Your task to perform on an android device: remove spam from my inbox in the gmail app Image 0: 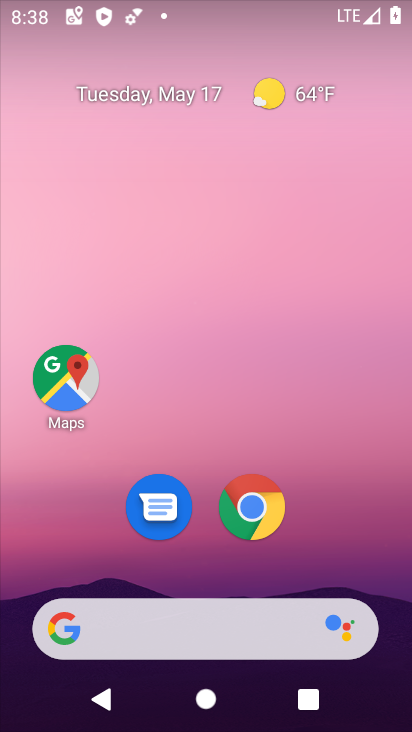
Step 0: drag from (319, 550) to (364, 4)
Your task to perform on an android device: remove spam from my inbox in the gmail app Image 1: 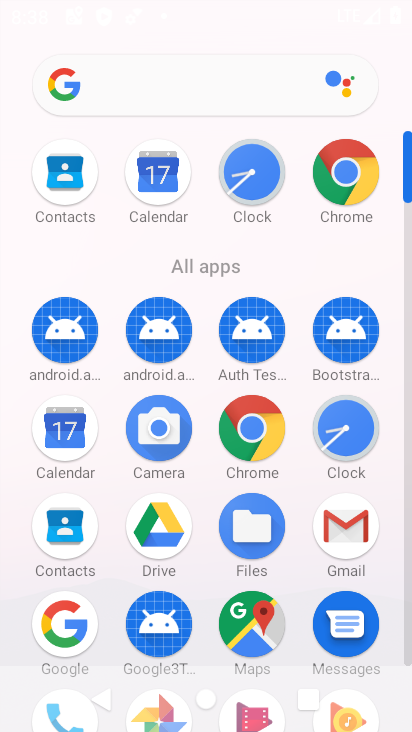
Step 1: click (344, 525)
Your task to perform on an android device: remove spam from my inbox in the gmail app Image 2: 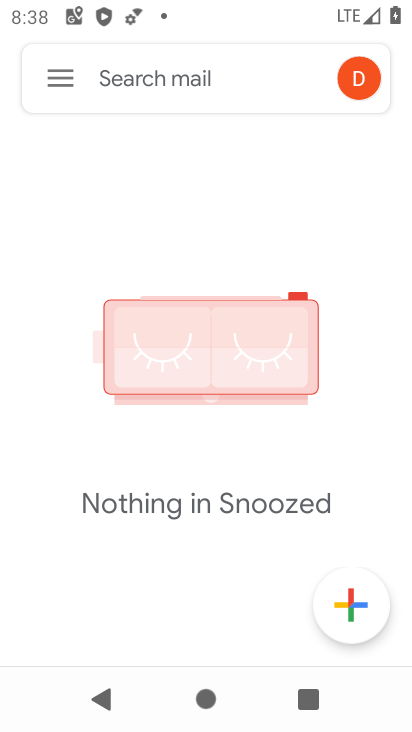
Step 2: click (61, 77)
Your task to perform on an android device: remove spam from my inbox in the gmail app Image 3: 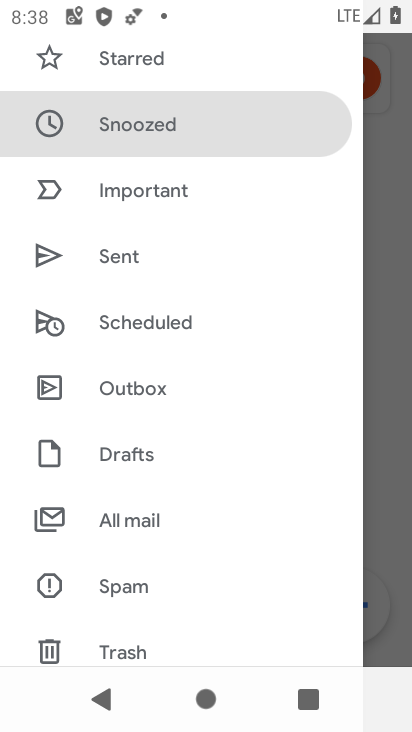
Step 3: drag from (165, 455) to (217, 370)
Your task to perform on an android device: remove spam from my inbox in the gmail app Image 4: 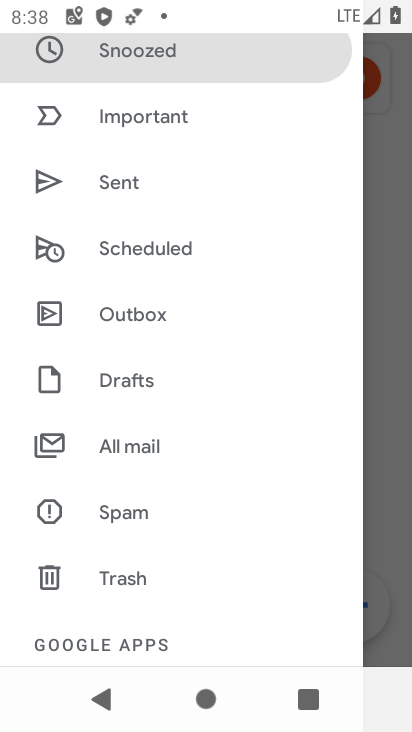
Step 4: click (140, 512)
Your task to perform on an android device: remove spam from my inbox in the gmail app Image 5: 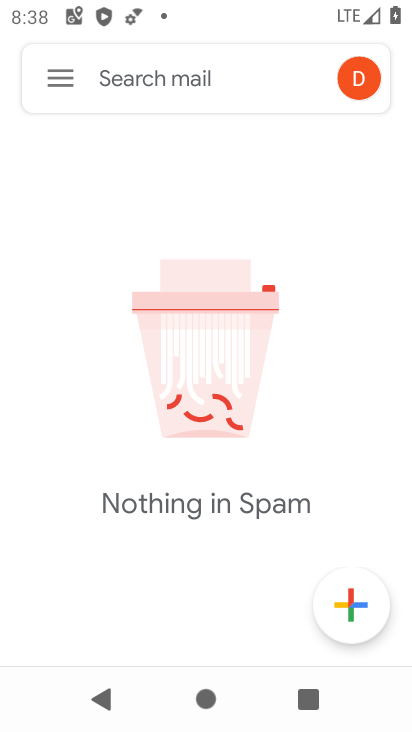
Step 5: task complete